Your task to perform on an android device: see sites visited before in the chrome app Image 0: 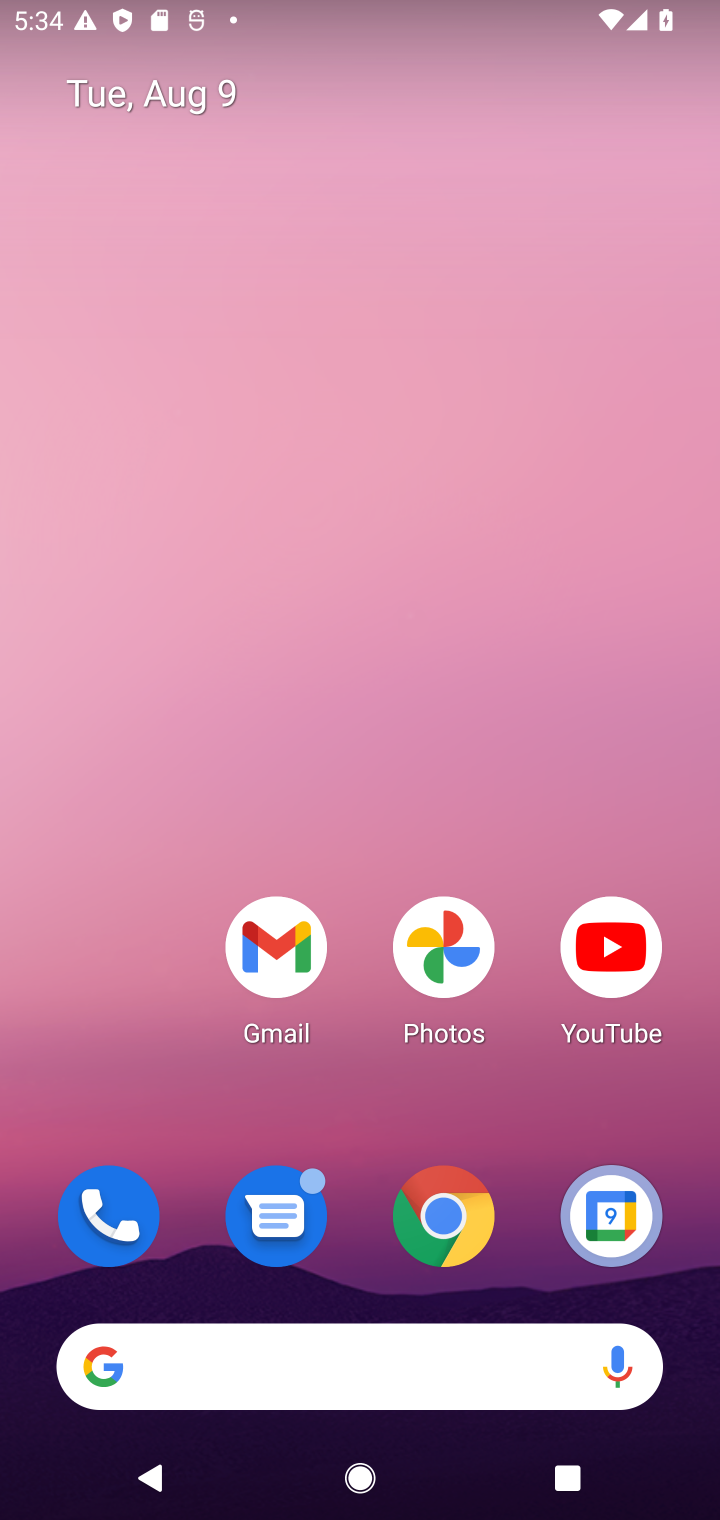
Step 0: drag from (339, 1351) to (298, 193)
Your task to perform on an android device: see sites visited before in the chrome app Image 1: 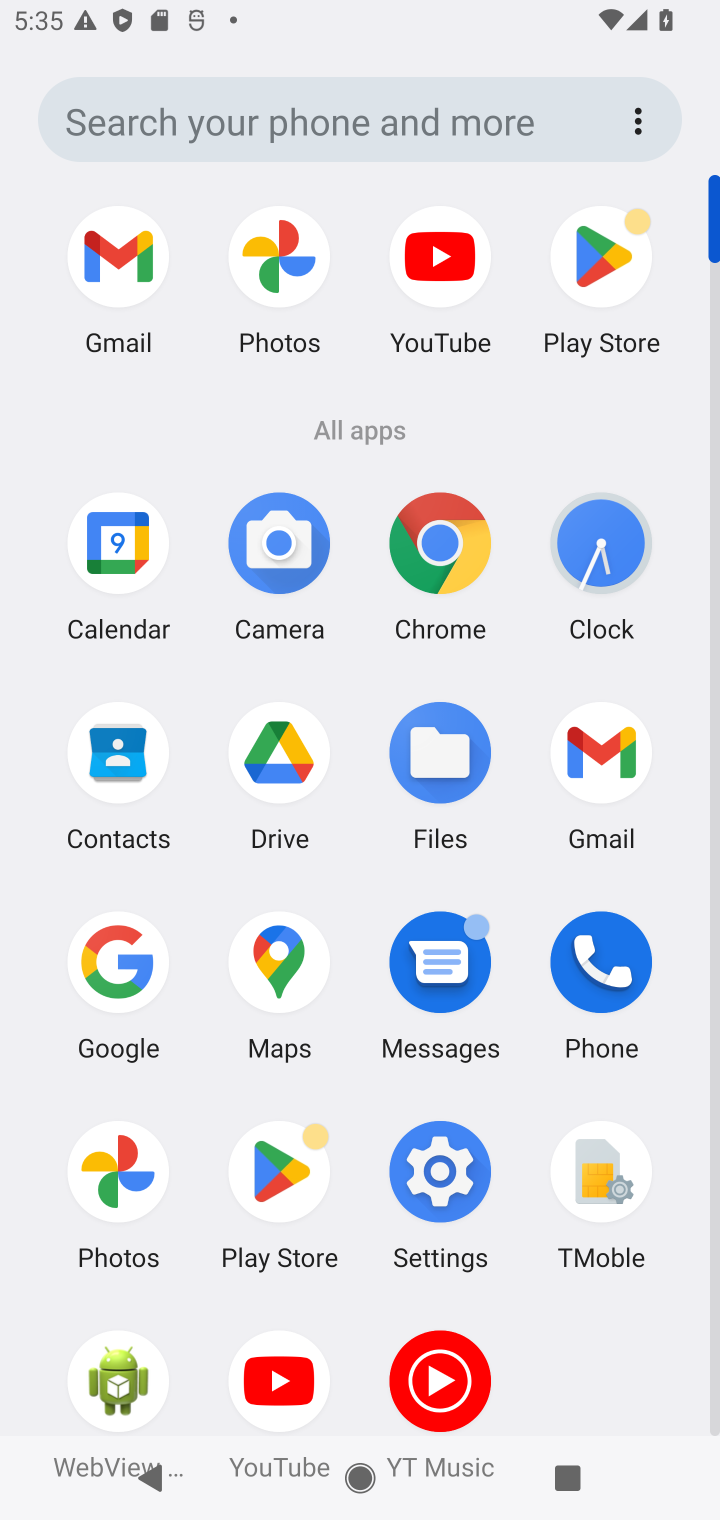
Step 1: click (449, 554)
Your task to perform on an android device: see sites visited before in the chrome app Image 2: 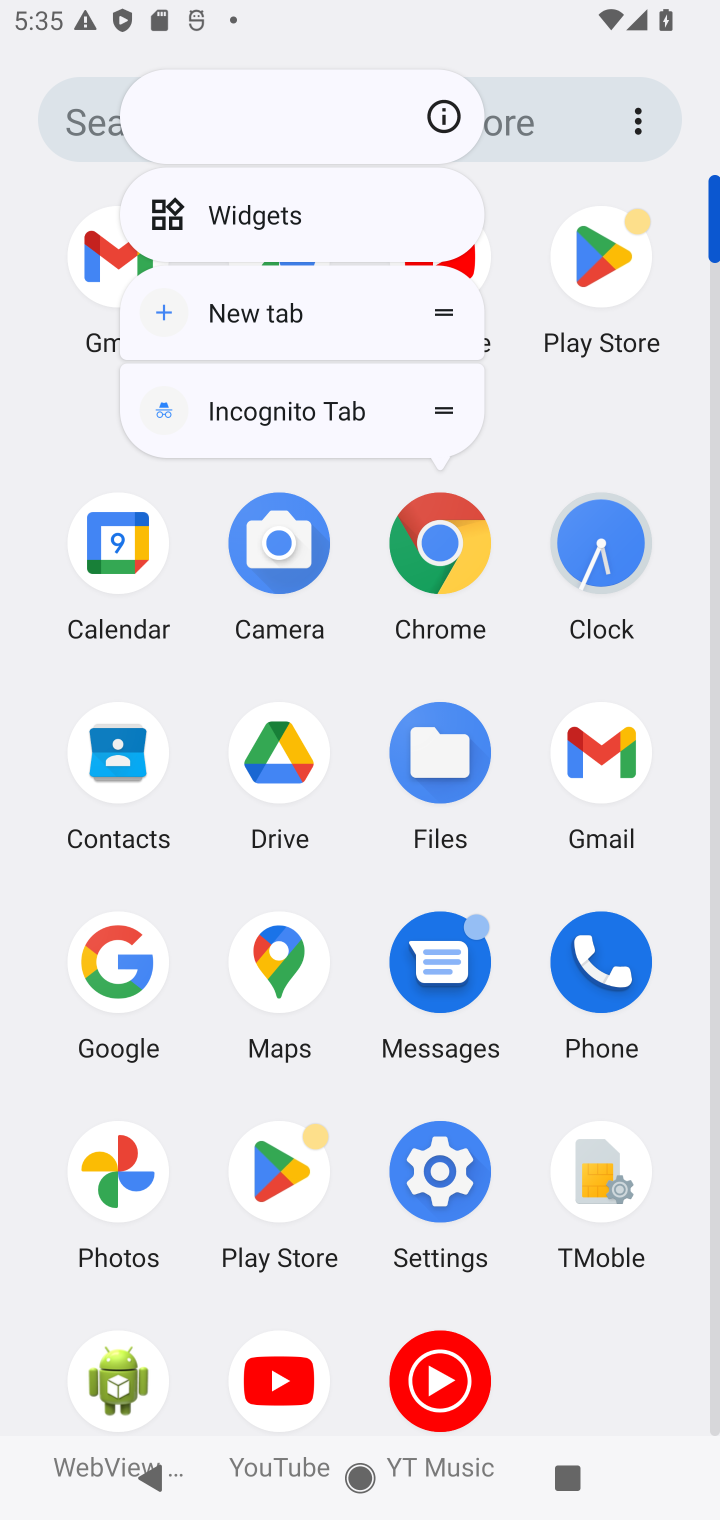
Step 2: click (424, 534)
Your task to perform on an android device: see sites visited before in the chrome app Image 3: 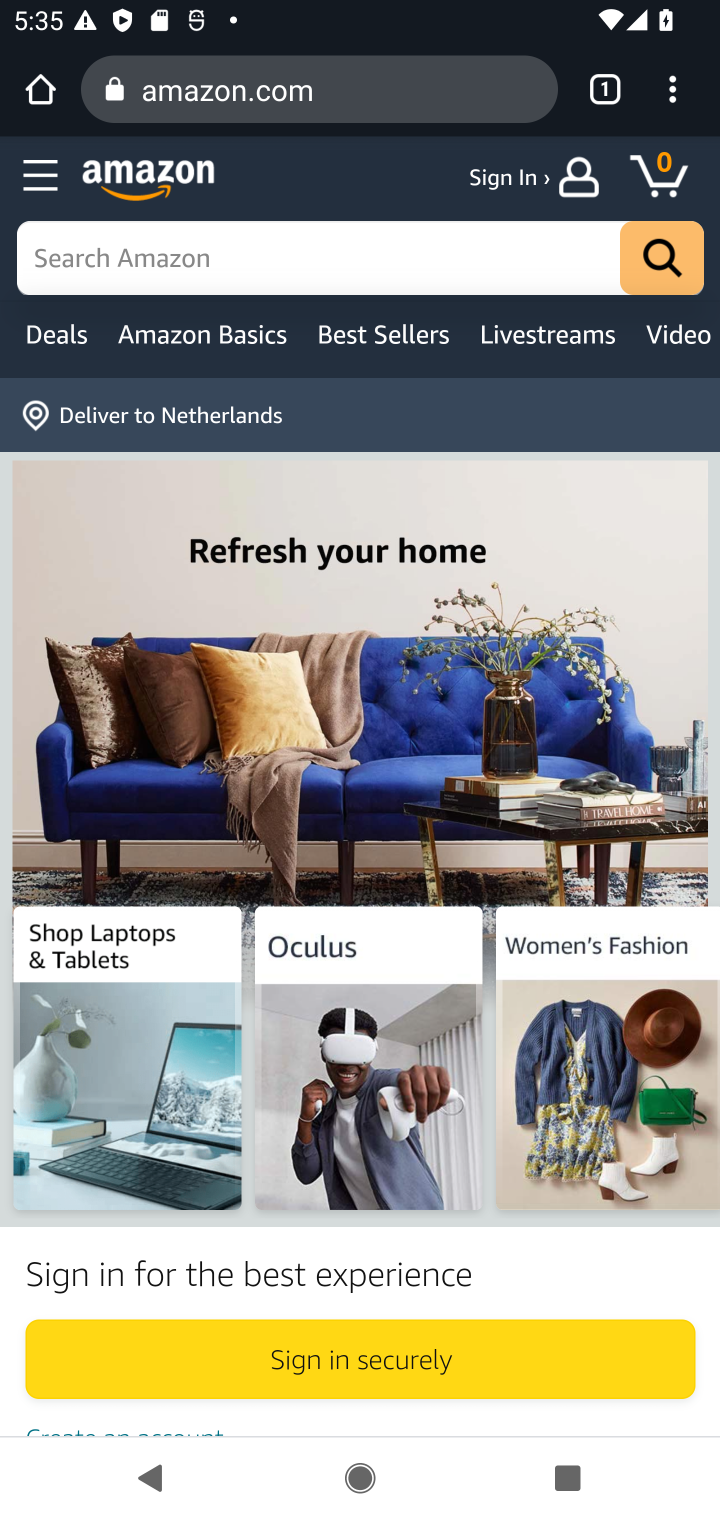
Step 3: click (610, 87)
Your task to perform on an android device: see sites visited before in the chrome app Image 4: 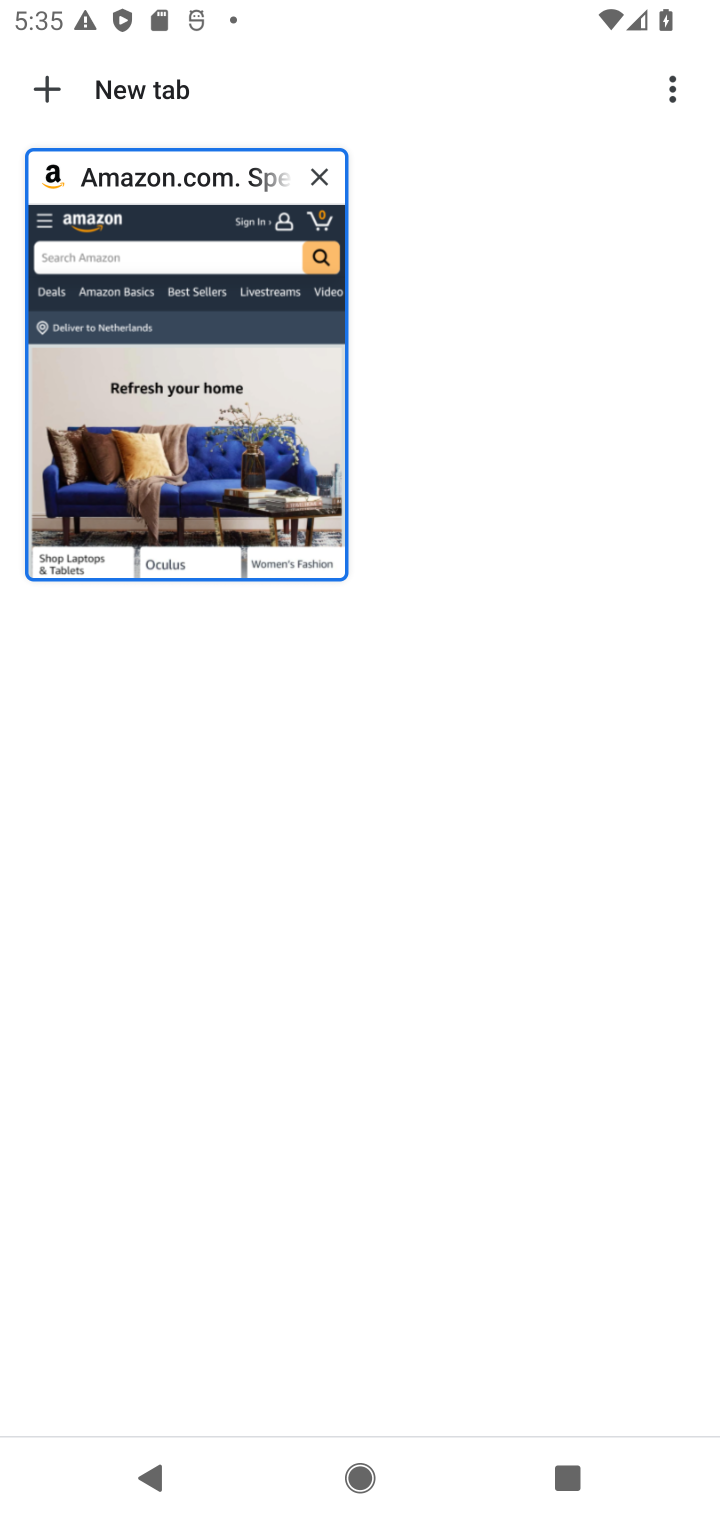
Step 4: task complete